Your task to perform on an android device: Go to accessibility settings Image 0: 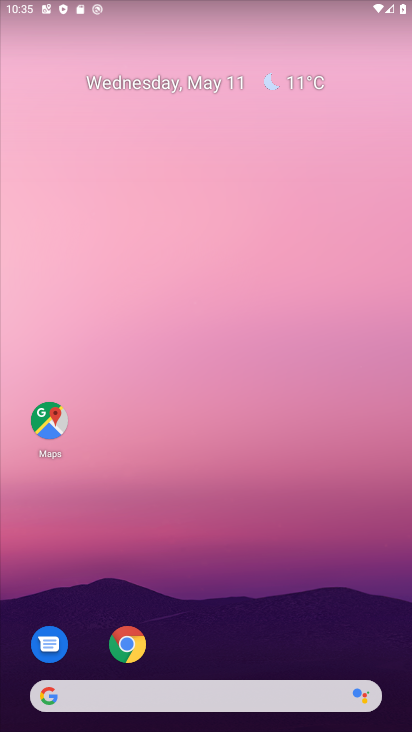
Step 0: drag from (331, 668) to (367, 10)
Your task to perform on an android device: Go to accessibility settings Image 1: 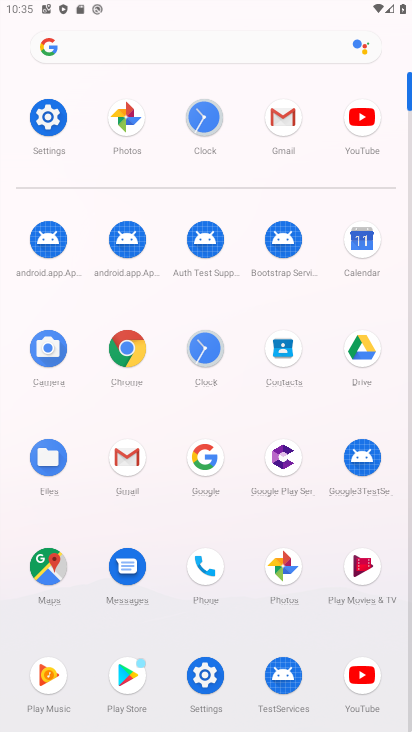
Step 1: click (46, 120)
Your task to perform on an android device: Go to accessibility settings Image 2: 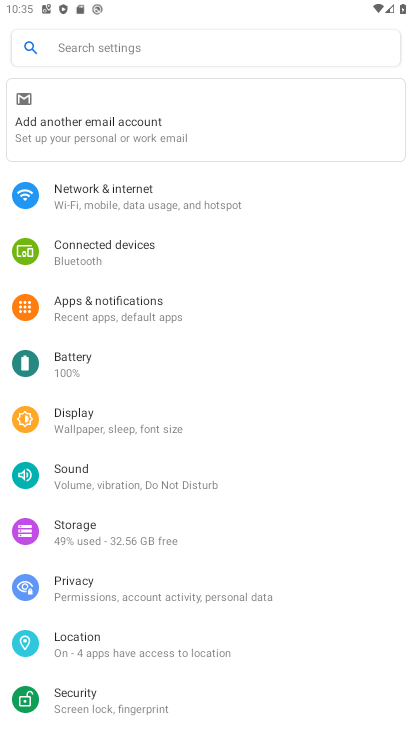
Step 2: drag from (376, 681) to (389, 207)
Your task to perform on an android device: Go to accessibility settings Image 3: 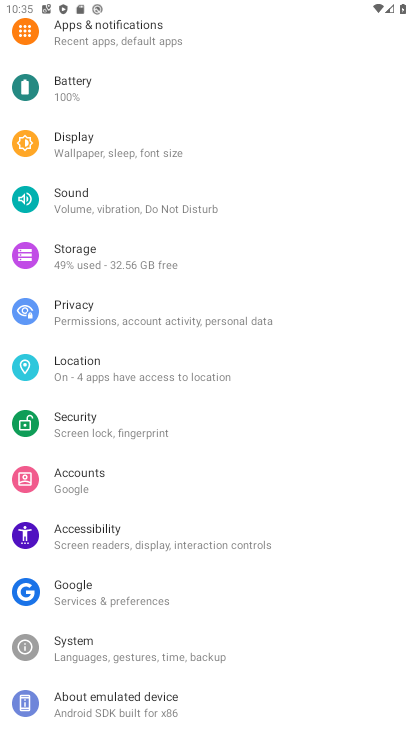
Step 3: click (118, 530)
Your task to perform on an android device: Go to accessibility settings Image 4: 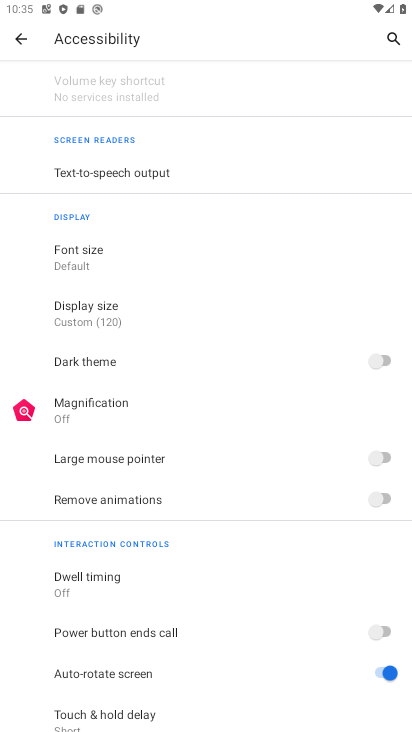
Step 4: task complete